Your task to perform on an android device: Install the CNN app Image 0: 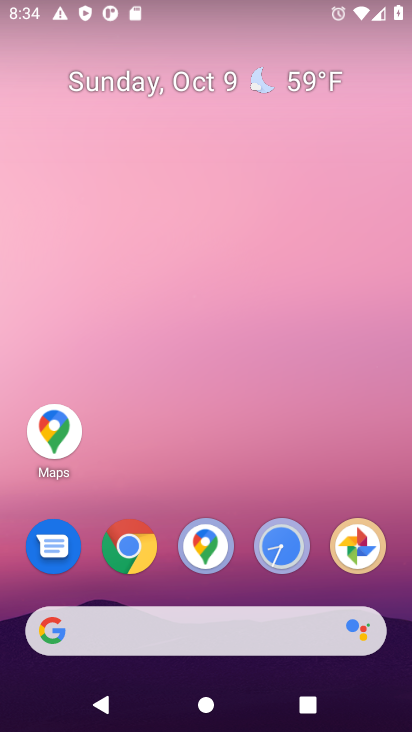
Step 0: click (130, 543)
Your task to perform on an android device: Install the CNN app Image 1: 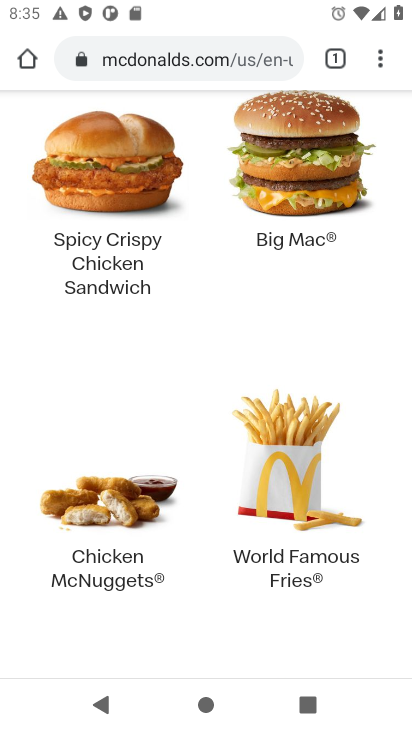
Step 1: click (221, 76)
Your task to perform on an android device: Install the CNN app Image 2: 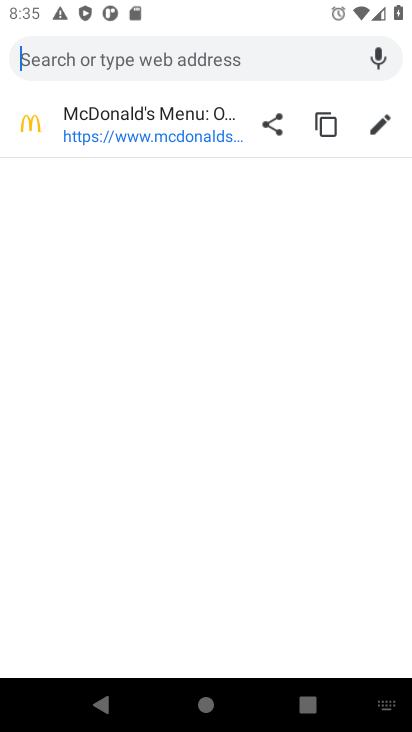
Step 2: press home button
Your task to perform on an android device: Install the CNN app Image 3: 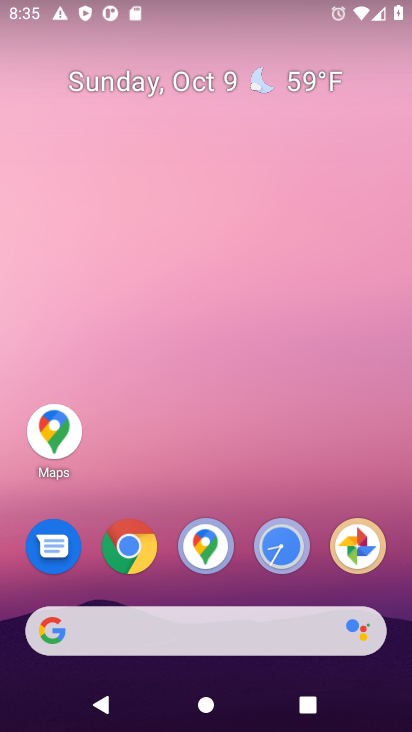
Step 3: drag from (231, 597) to (246, 467)
Your task to perform on an android device: Install the CNN app Image 4: 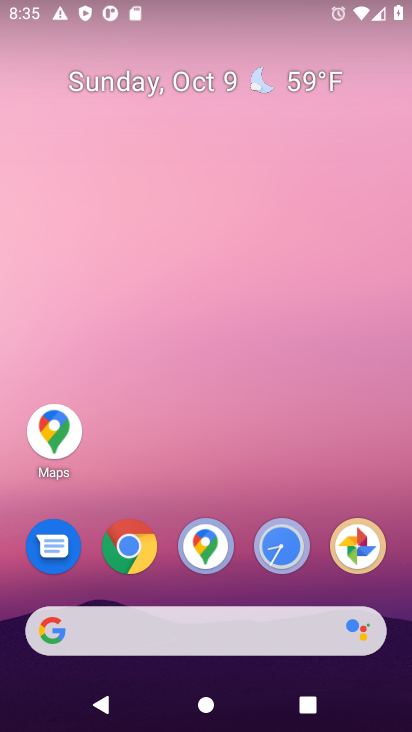
Step 4: drag from (200, 648) to (209, 86)
Your task to perform on an android device: Install the CNN app Image 5: 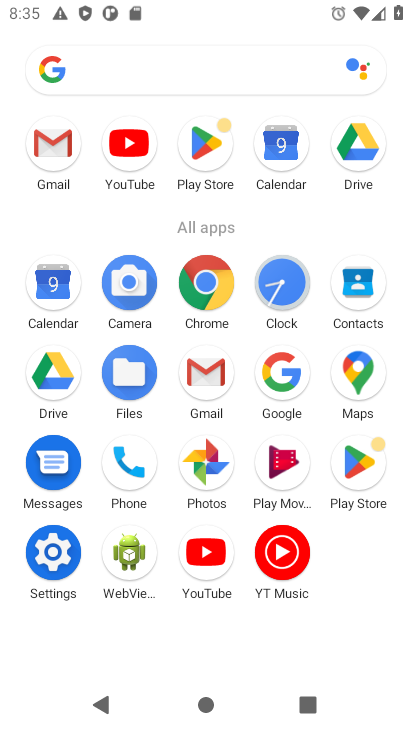
Step 5: click (361, 469)
Your task to perform on an android device: Install the CNN app Image 6: 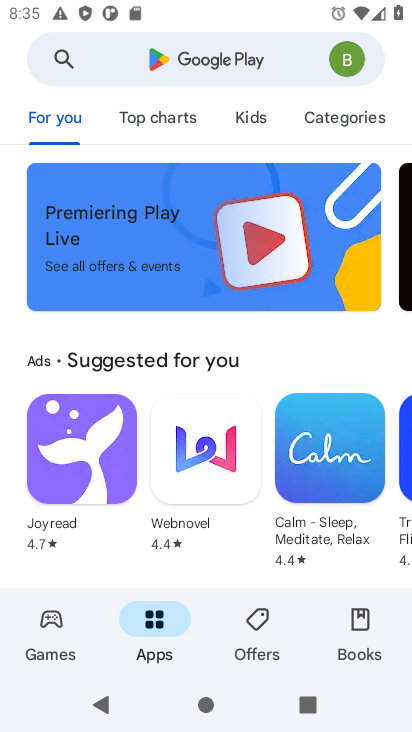
Step 6: click (203, 54)
Your task to perform on an android device: Install the CNN app Image 7: 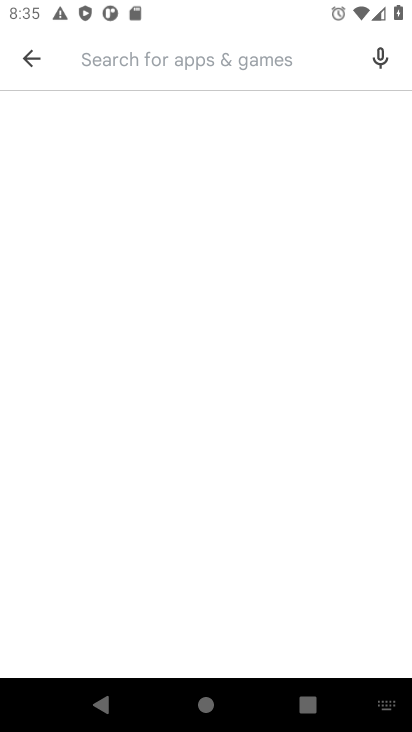
Step 7: type "cnn"
Your task to perform on an android device: Install the CNN app Image 8: 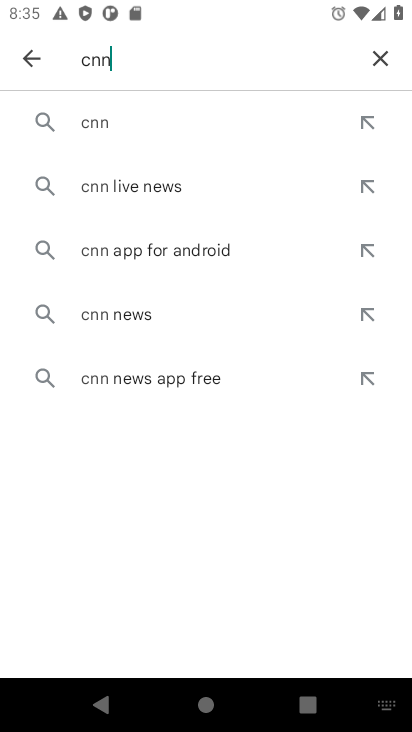
Step 8: type ""
Your task to perform on an android device: Install the CNN app Image 9: 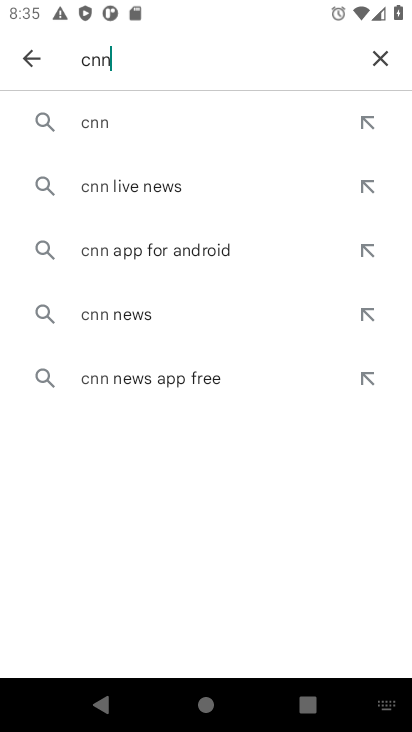
Step 9: press enter
Your task to perform on an android device: Install the CNN app Image 10: 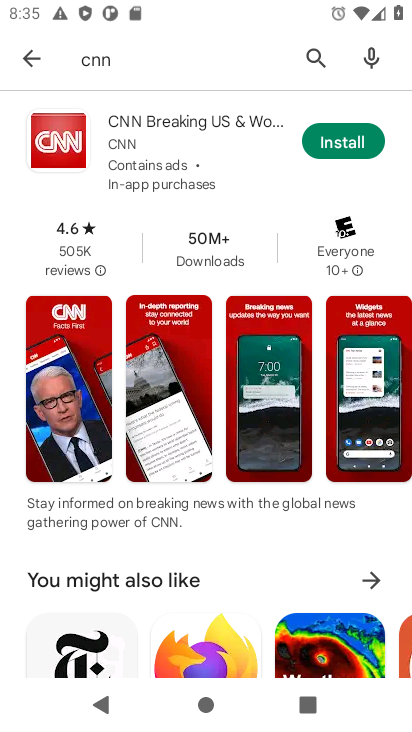
Step 10: click (328, 148)
Your task to perform on an android device: Install the CNN app Image 11: 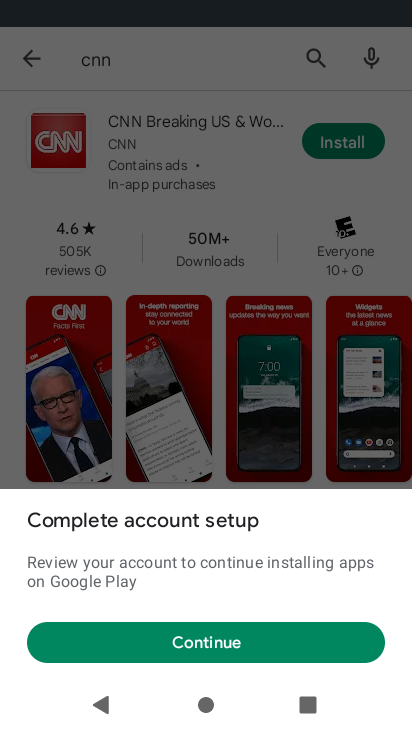
Step 11: click (301, 639)
Your task to perform on an android device: Install the CNN app Image 12: 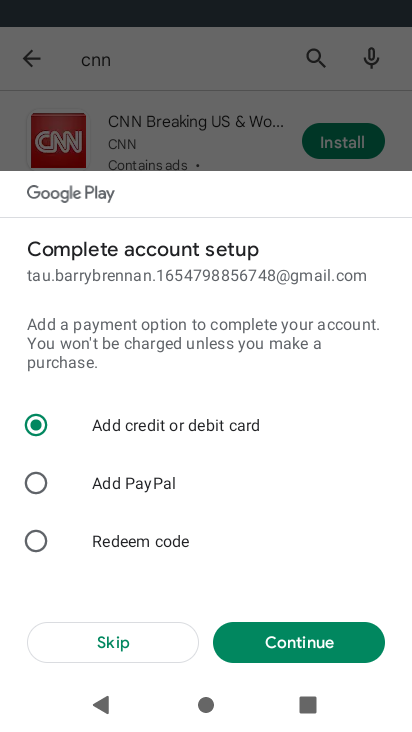
Step 12: click (142, 634)
Your task to perform on an android device: Install the CNN app Image 13: 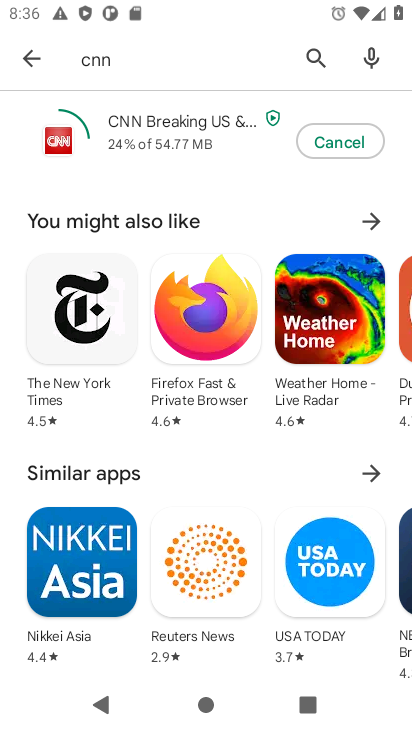
Step 13: task complete